Your task to perform on an android device: add a label to a message in the gmail app Image 0: 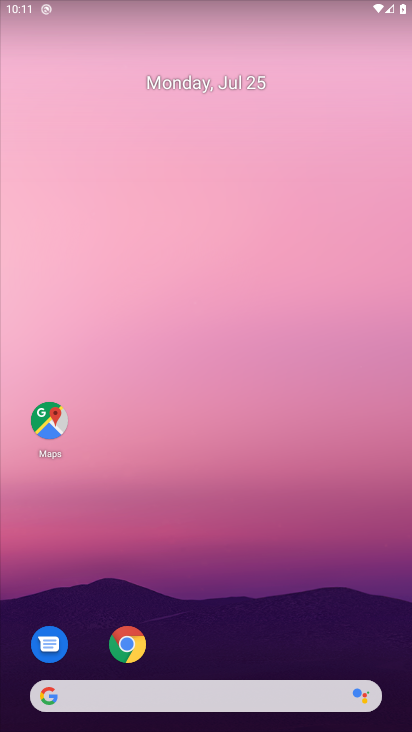
Step 0: drag from (366, 370) to (392, 33)
Your task to perform on an android device: add a label to a message in the gmail app Image 1: 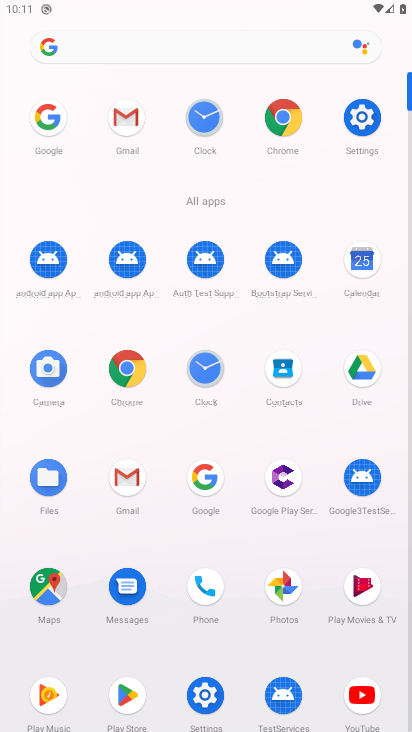
Step 1: click (131, 467)
Your task to perform on an android device: add a label to a message in the gmail app Image 2: 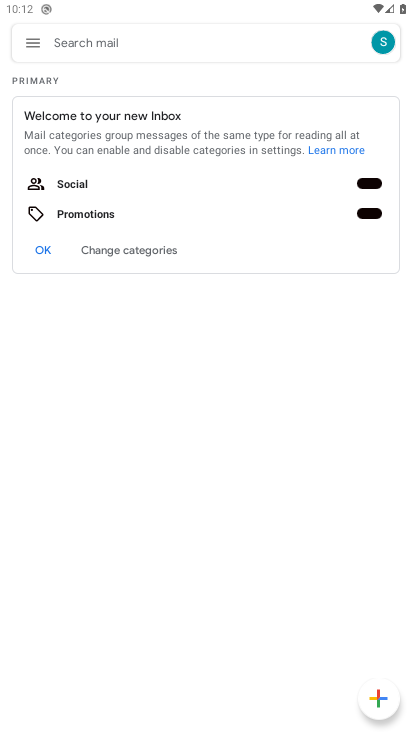
Step 2: task complete